Your task to perform on an android device: add a contact in the contacts app Image 0: 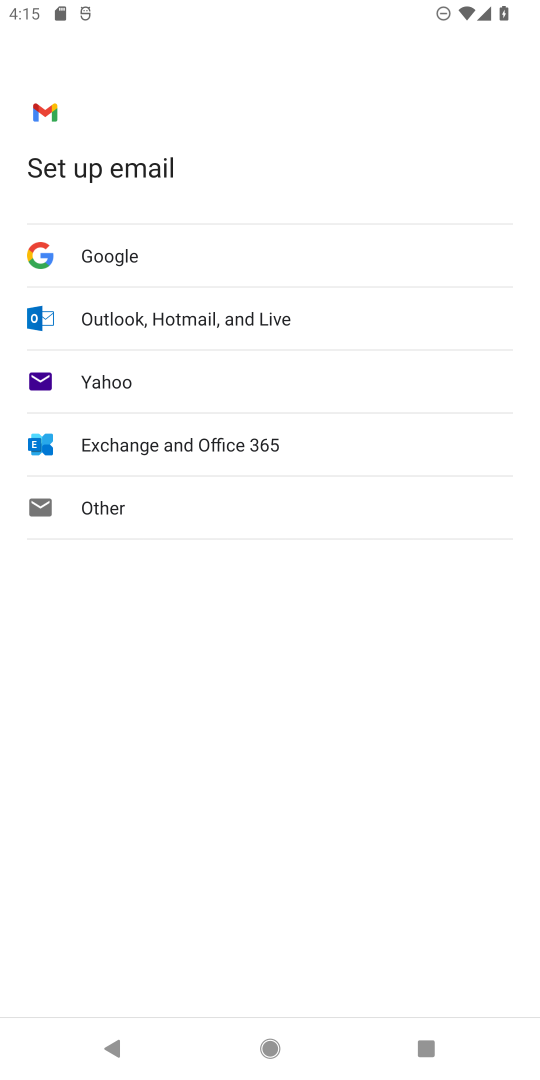
Step 0: press home button
Your task to perform on an android device: add a contact in the contacts app Image 1: 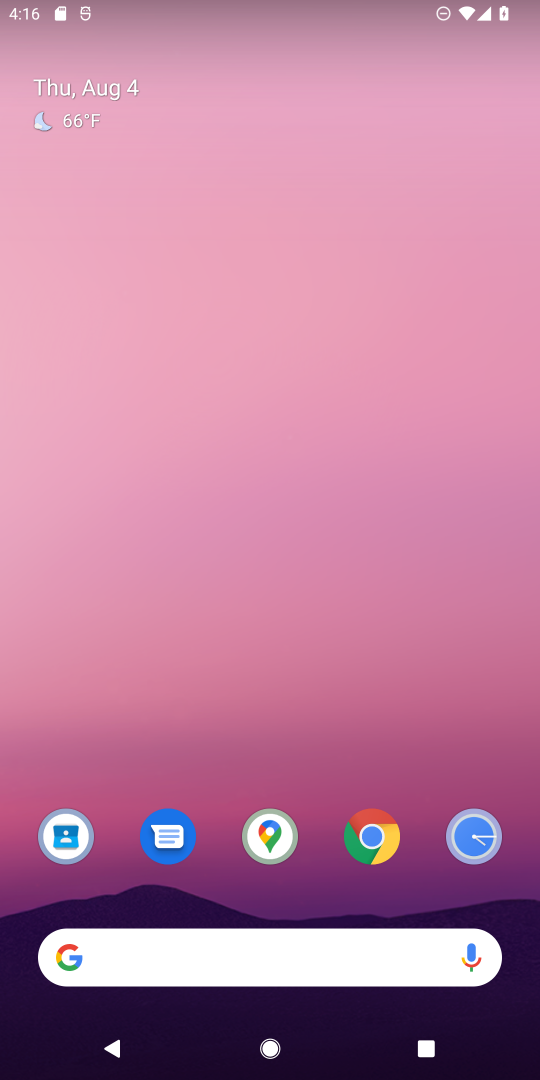
Step 1: click (66, 826)
Your task to perform on an android device: add a contact in the contacts app Image 2: 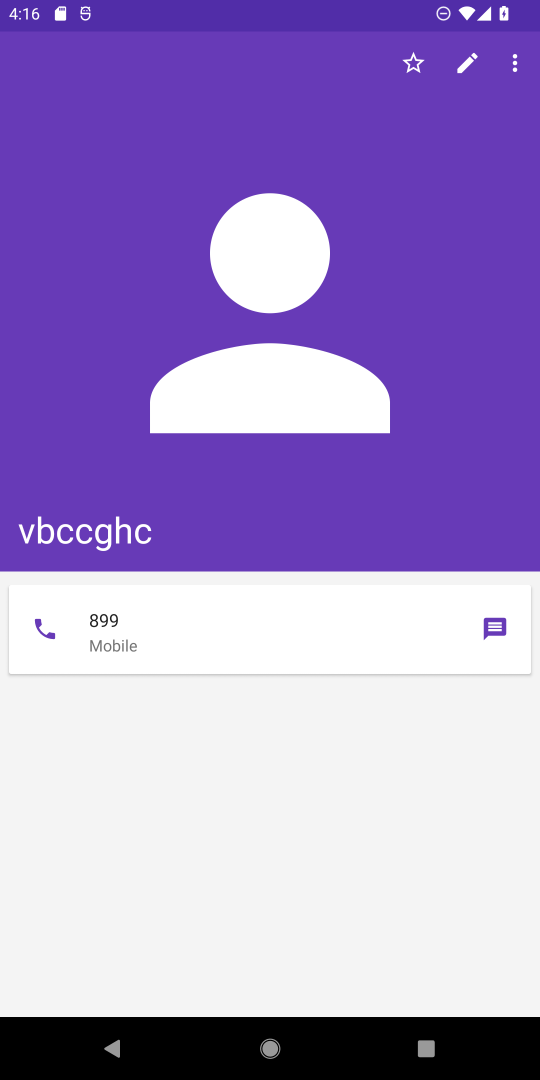
Step 2: click (134, 1036)
Your task to perform on an android device: add a contact in the contacts app Image 3: 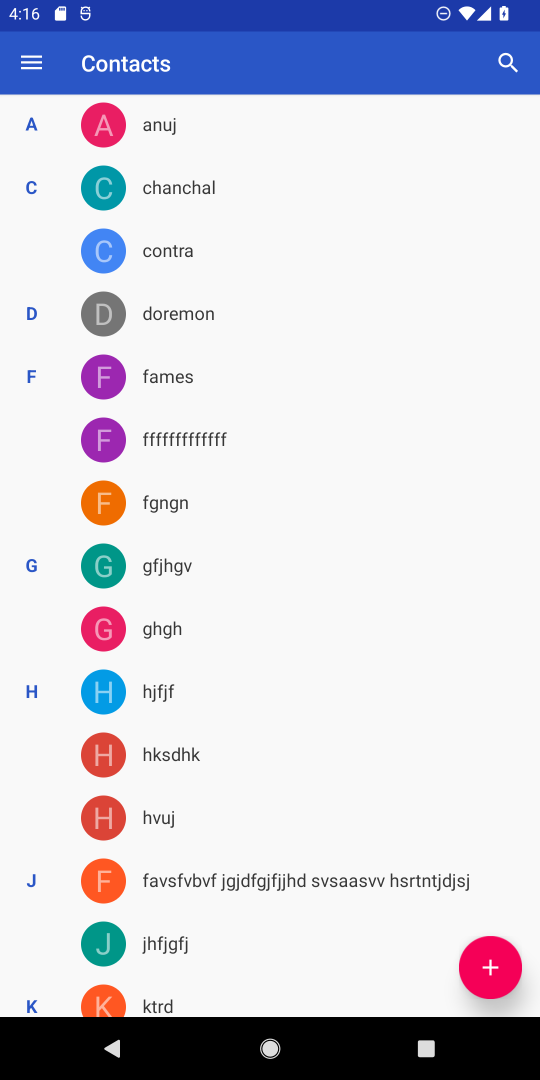
Step 3: click (488, 964)
Your task to perform on an android device: add a contact in the contacts app Image 4: 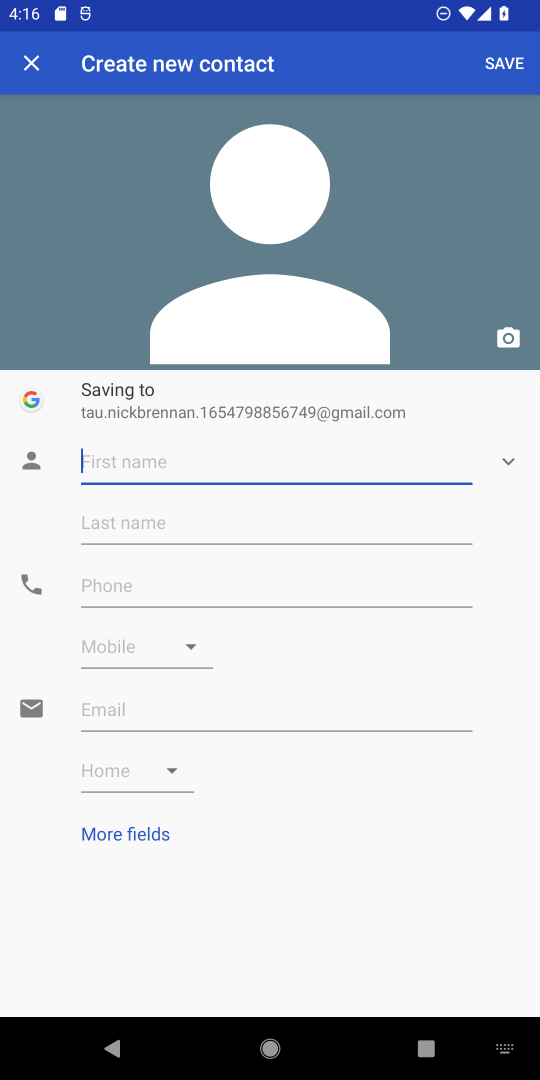
Step 4: type "fhfcjhgv"
Your task to perform on an android device: add a contact in the contacts app Image 5: 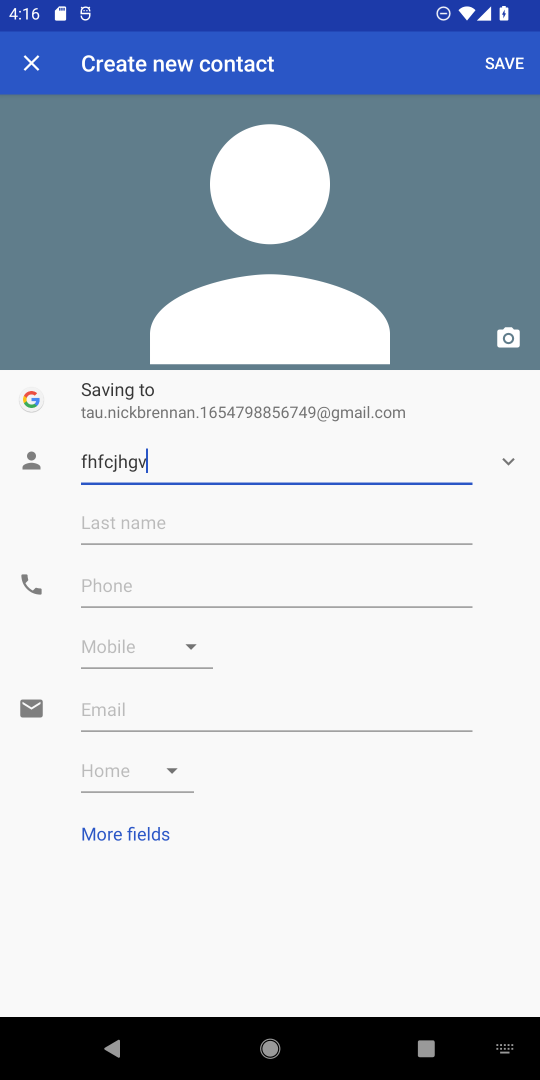
Step 5: click (198, 576)
Your task to perform on an android device: add a contact in the contacts app Image 6: 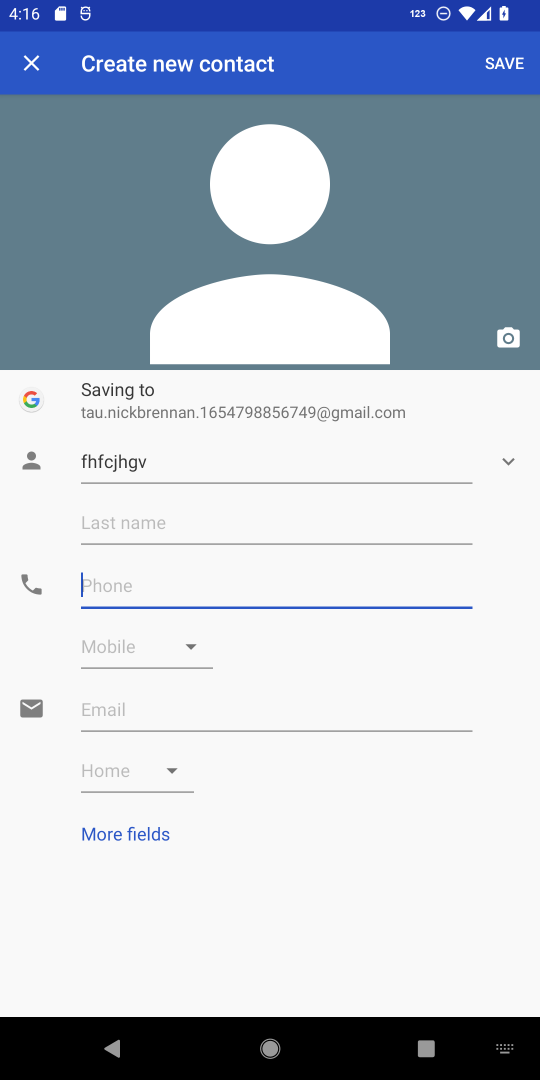
Step 6: type "78667"
Your task to perform on an android device: add a contact in the contacts app Image 7: 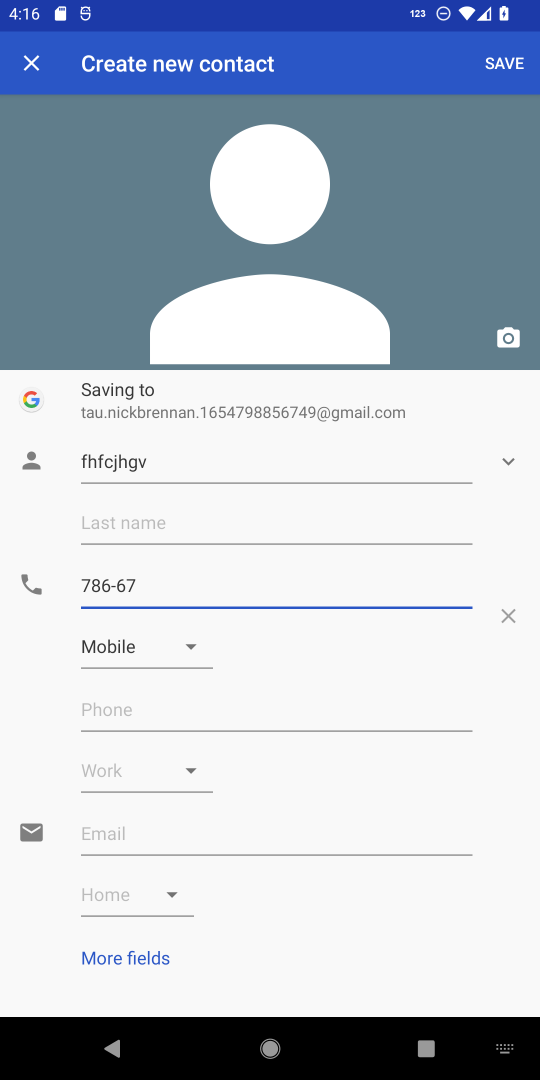
Step 7: click (500, 57)
Your task to perform on an android device: add a contact in the contacts app Image 8: 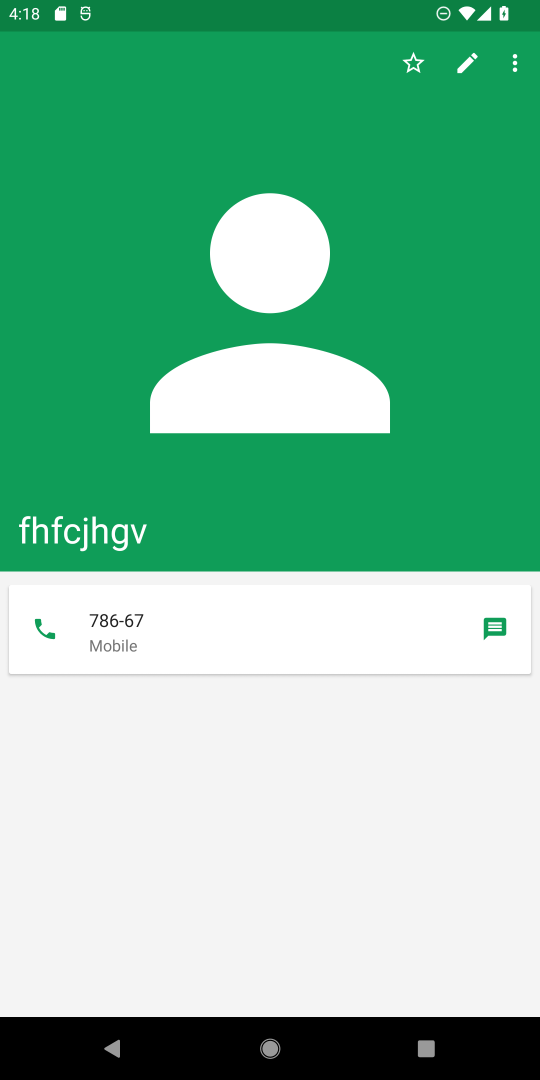
Step 8: task complete